Your task to perform on an android device: turn smart compose on in the gmail app Image 0: 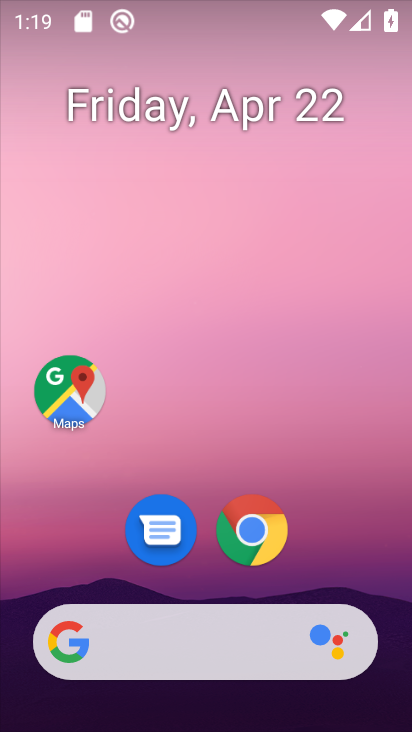
Step 0: drag from (222, 601) to (181, 185)
Your task to perform on an android device: turn smart compose on in the gmail app Image 1: 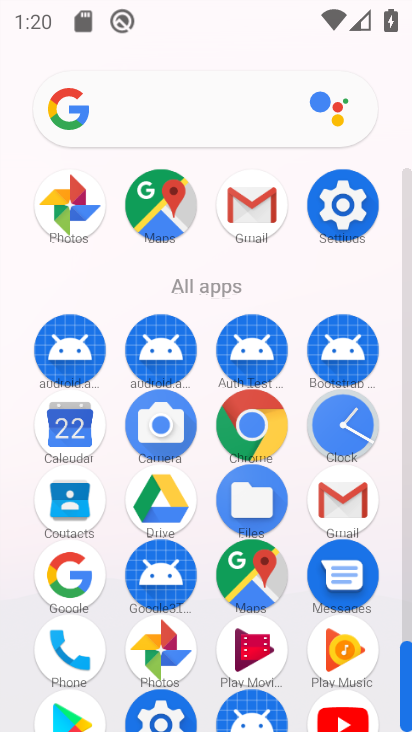
Step 1: click (339, 206)
Your task to perform on an android device: turn smart compose on in the gmail app Image 2: 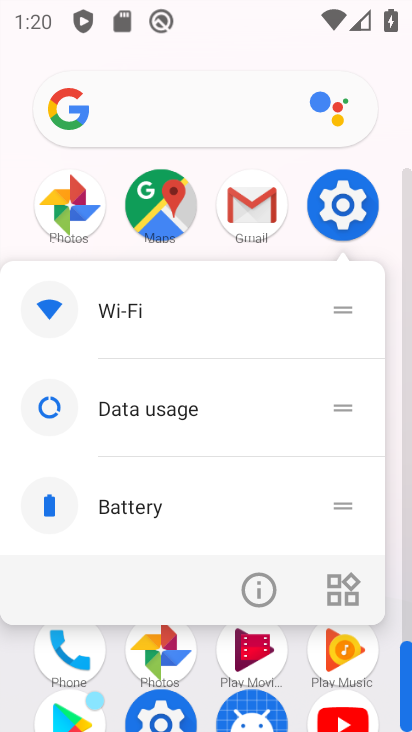
Step 2: click (346, 222)
Your task to perform on an android device: turn smart compose on in the gmail app Image 3: 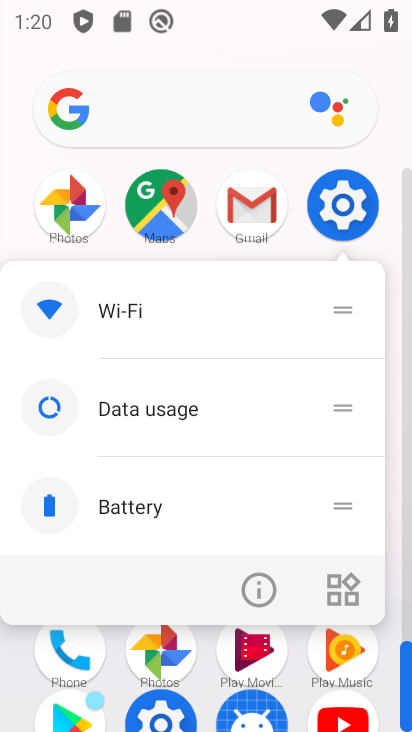
Step 3: click (250, 195)
Your task to perform on an android device: turn smart compose on in the gmail app Image 4: 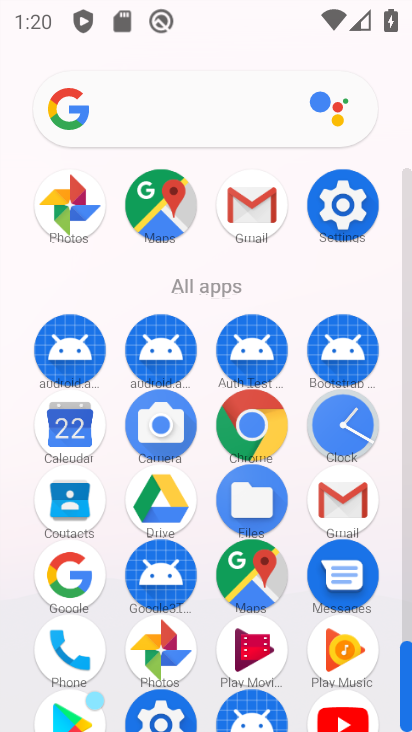
Step 4: click (259, 199)
Your task to perform on an android device: turn smart compose on in the gmail app Image 5: 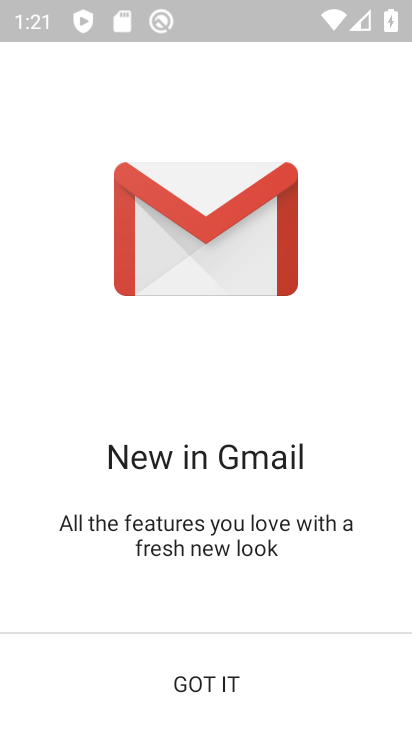
Step 5: click (223, 679)
Your task to perform on an android device: turn smart compose on in the gmail app Image 6: 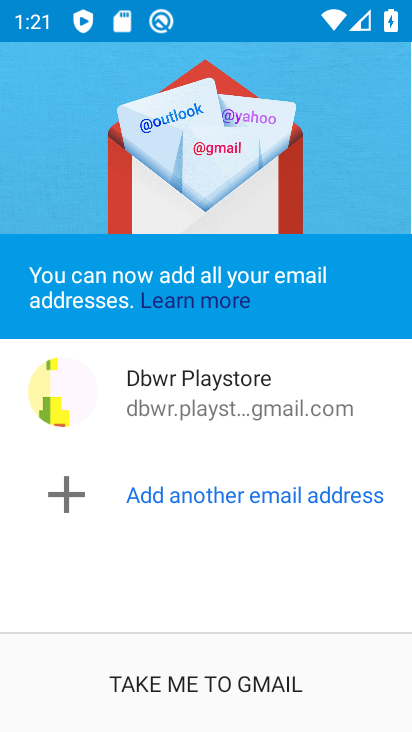
Step 6: click (223, 679)
Your task to perform on an android device: turn smart compose on in the gmail app Image 7: 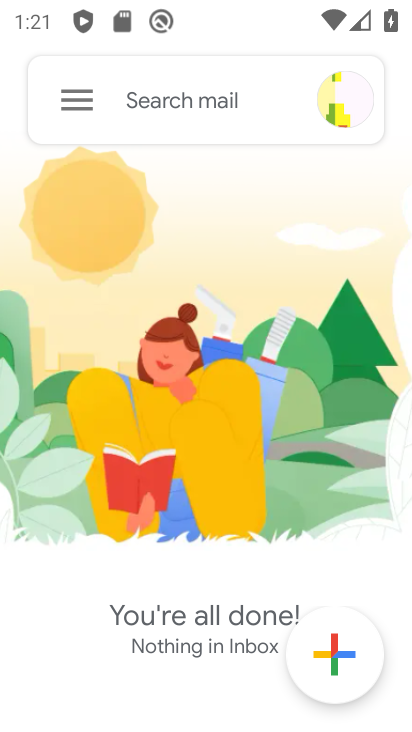
Step 7: click (55, 102)
Your task to perform on an android device: turn smart compose on in the gmail app Image 8: 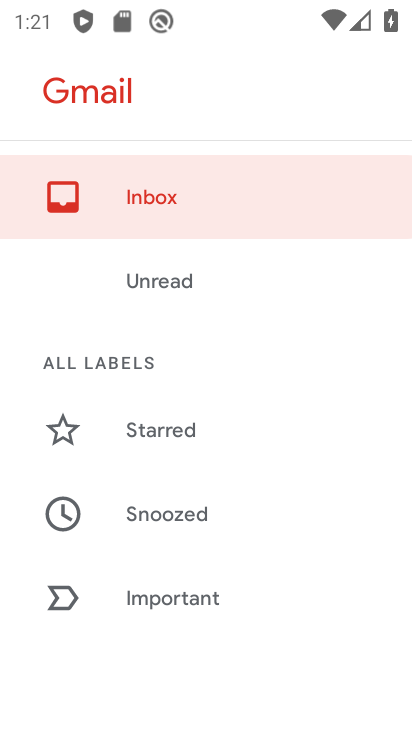
Step 8: drag from (186, 525) to (173, 21)
Your task to perform on an android device: turn smart compose on in the gmail app Image 9: 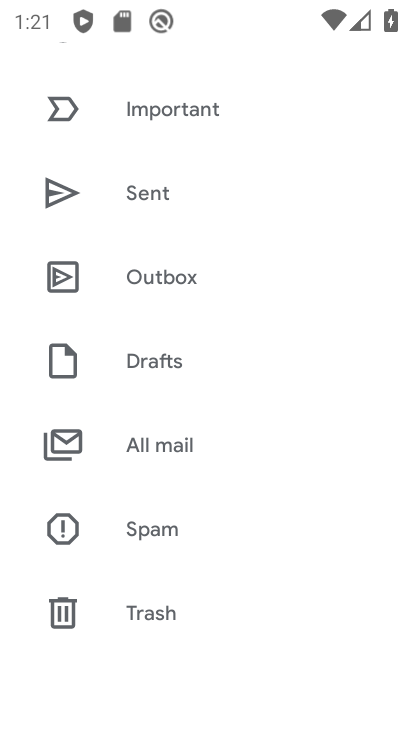
Step 9: drag from (252, 541) to (178, 5)
Your task to perform on an android device: turn smart compose on in the gmail app Image 10: 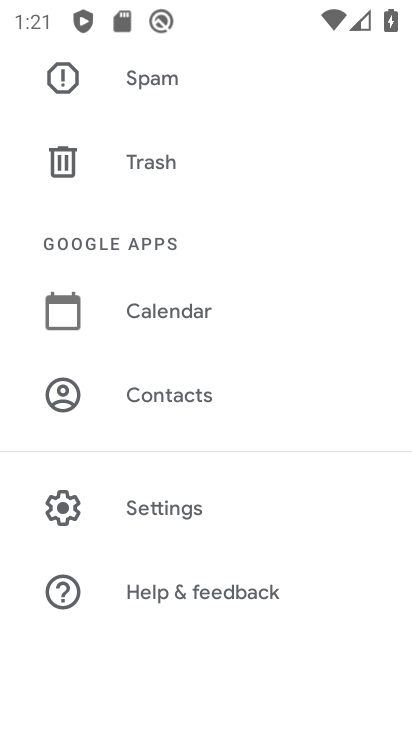
Step 10: click (203, 501)
Your task to perform on an android device: turn smart compose on in the gmail app Image 11: 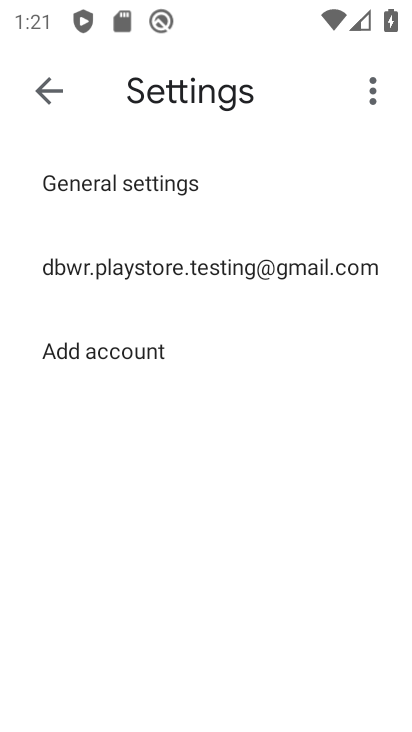
Step 11: click (263, 260)
Your task to perform on an android device: turn smart compose on in the gmail app Image 12: 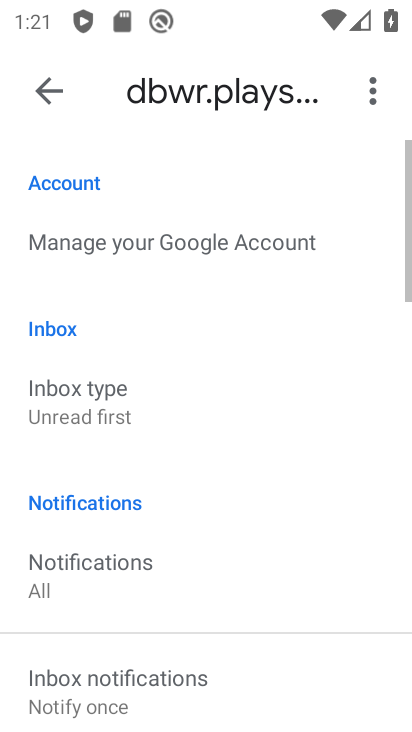
Step 12: task complete